Your task to perform on an android device: Install the CNN app Image 0: 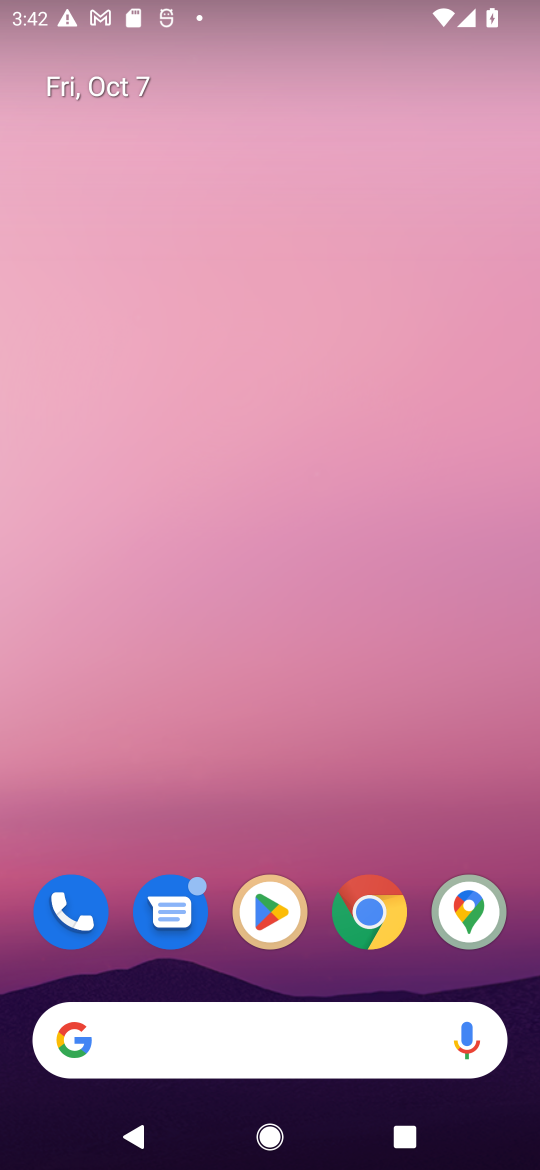
Step 0: drag from (219, 976) to (228, 209)
Your task to perform on an android device: Install the CNN app Image 1: 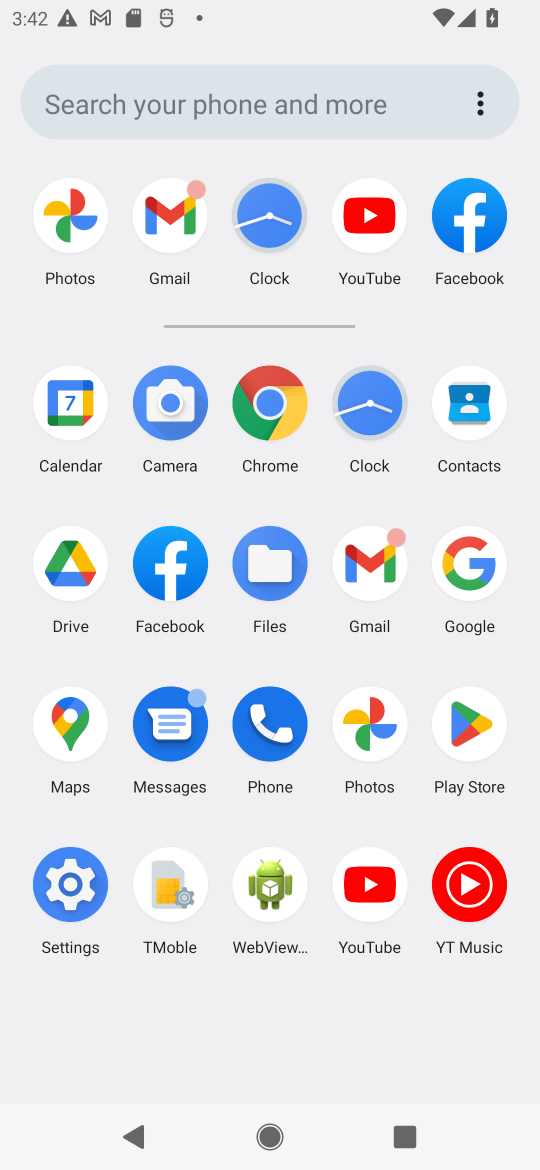
Step 1: click (456, 713)
Your task to perform on an android device: Install the CNN app Image 2: 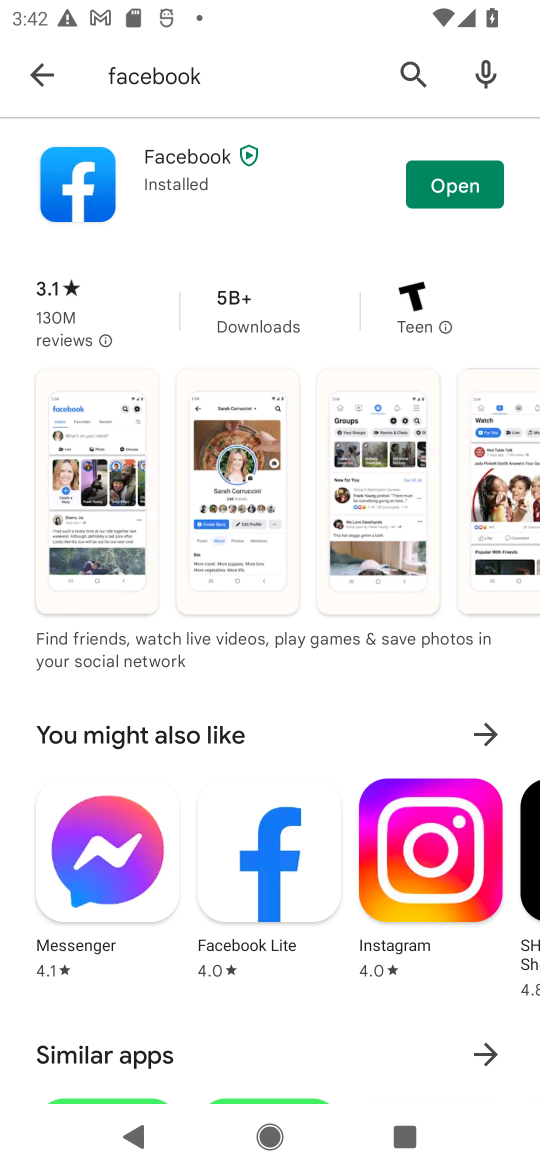
Step 2: click (43, 69)
Your task to perform on an android device: Install the CNN app Image 3: 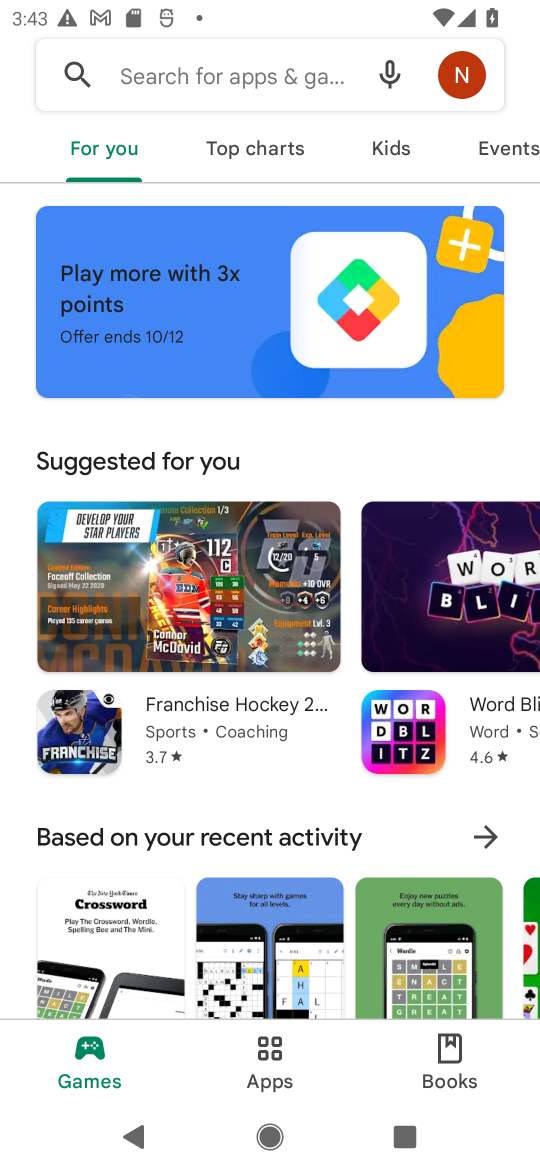
Step 3: click (178, 65)
Your task to perform on an android device: Install the CNN app Image 4: 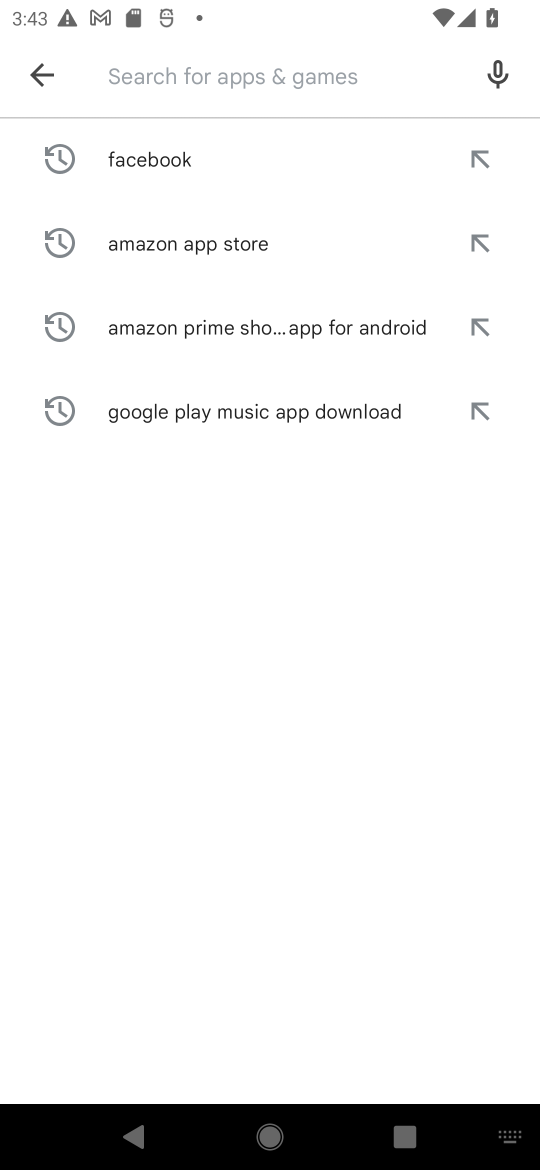
Step 4: type " the CNN  "
Your task to perform on an android device: Install the CNN app Image 5: 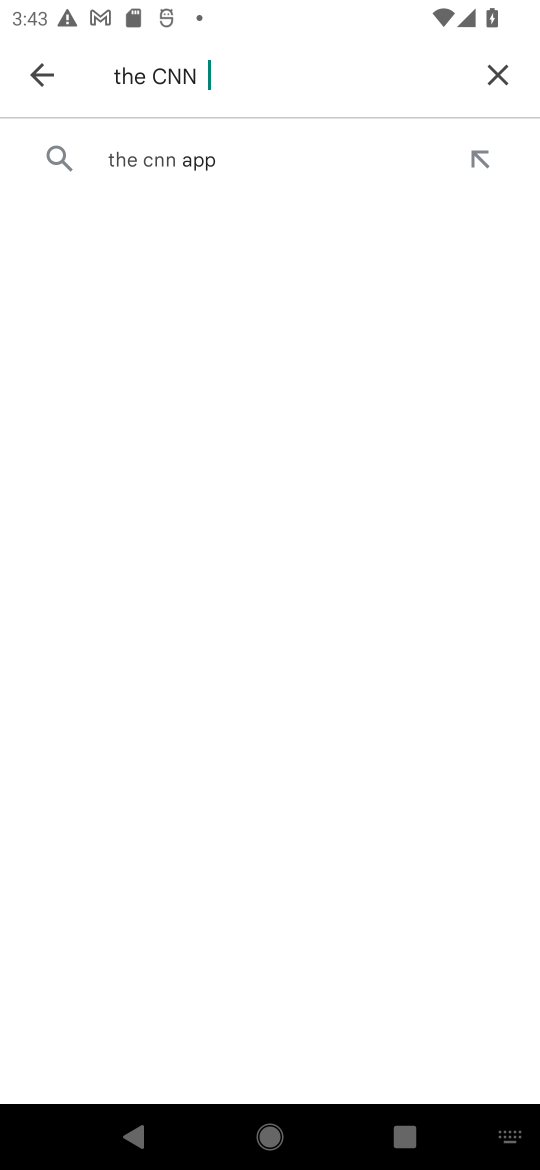
Step 5: click (272, 173)
Your task to perform on an android device: Install the CNN app Image 6: 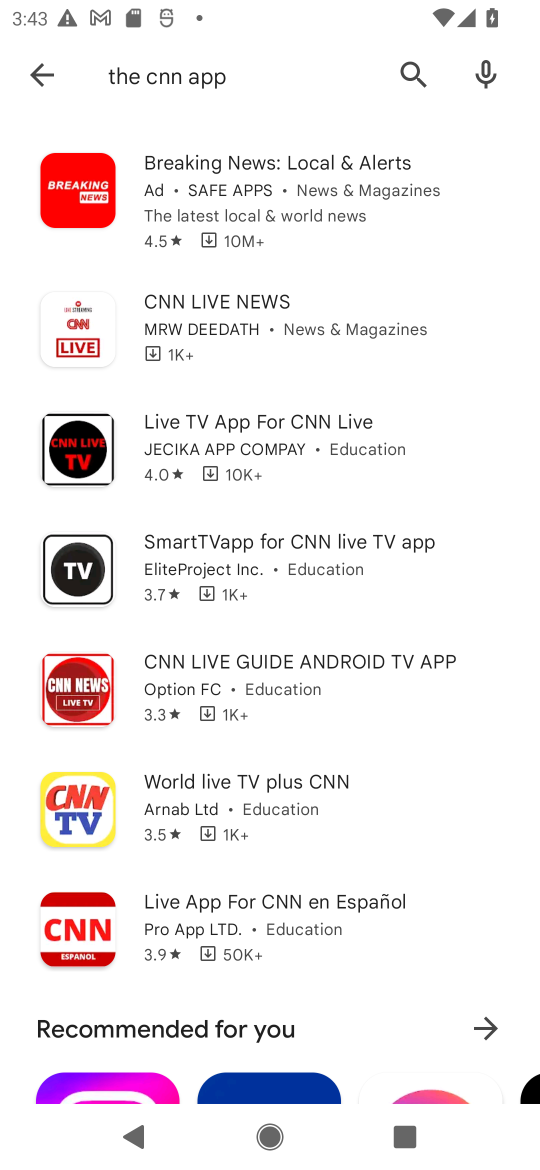
Step 6: click (200, 320)
Your task to perform on an android device: Install the CNN app Image 7: 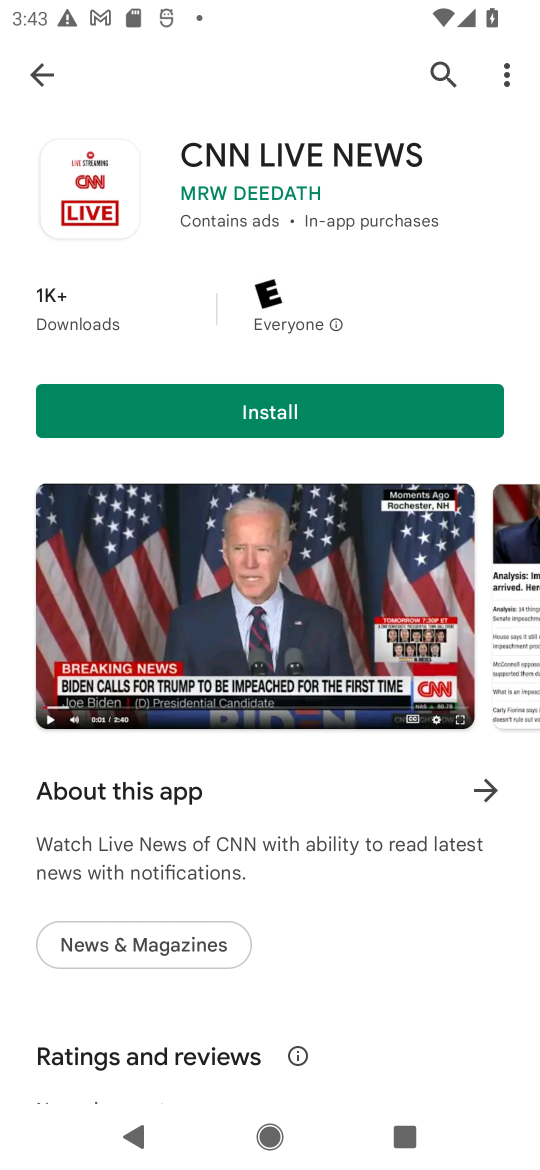
Step 7: click (321, 395)
Your task to perform on an android device: Install the CNN app Image 8: 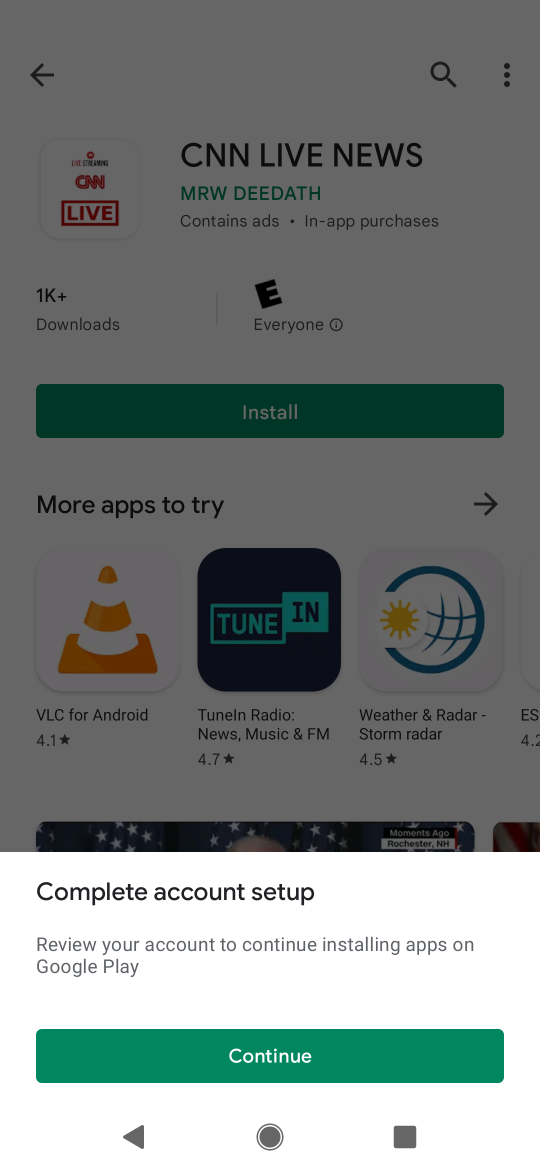
Step 8: task complete